Your task to perform on an android device: Open battery settings Image 0: 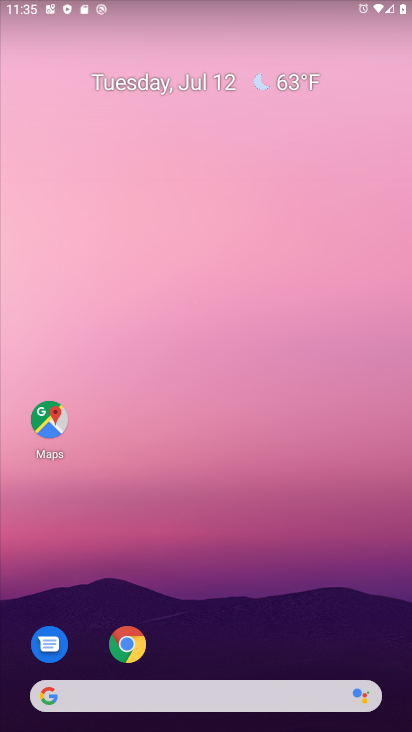
Step 0: drag from (218, 695) to (216, 96)
Your task to perform on an android device: Open battery settings Image 1: 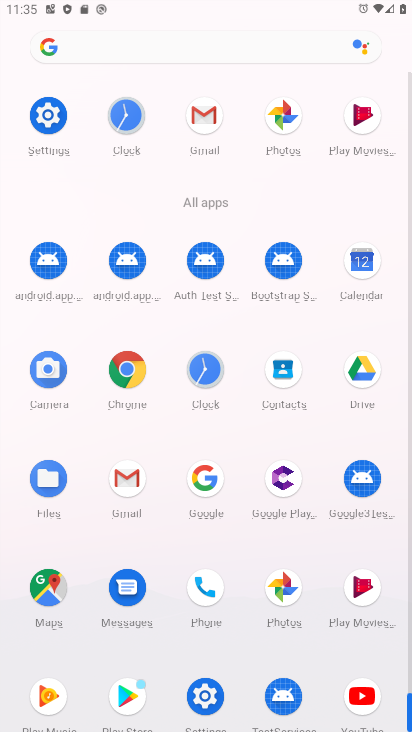
Step 1: click (48, 114)
Your task to perform on an android device: Open battery settings Image 2: 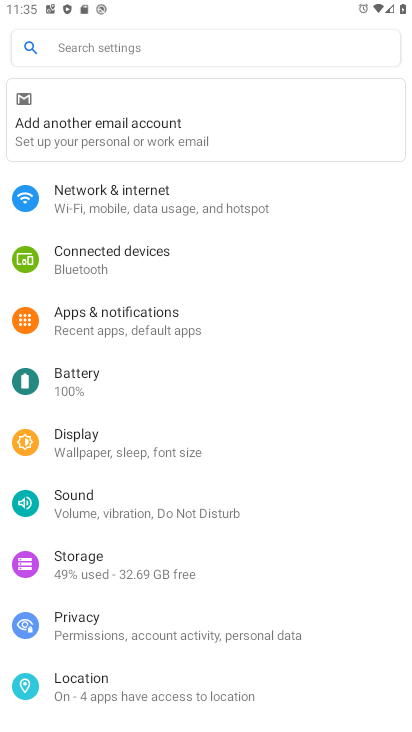
Step 2: click (79, 384)
Your task to perform on an android device: Open battery settings Image 3: 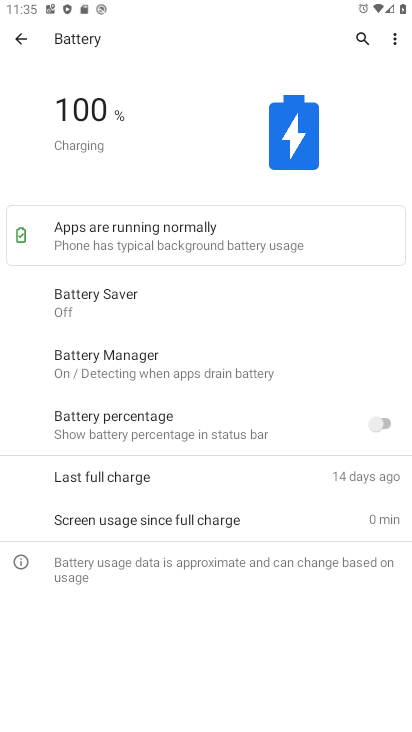
Step 3: task complete